Your task to perform on an android device: toggle sleep mode Image 0: 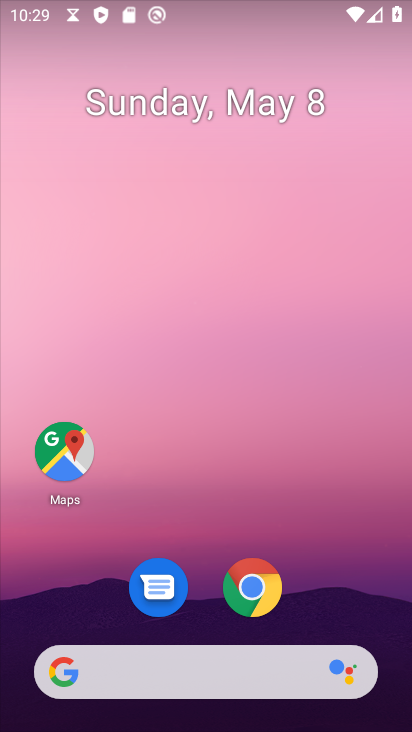
Step 0: drag from (348, 610) to (63, 59)
Your task to perform on an android device: toggle sleep mode Image 1: 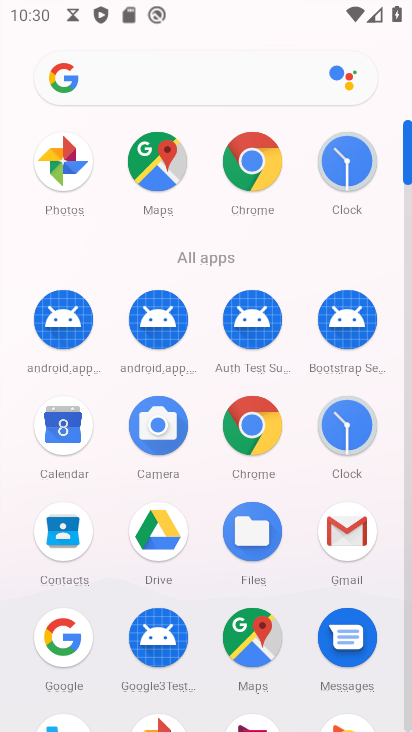
Step 1: drag from (206, 627) to (206, 204)
Your task to perform on an android device: toggle sleep mode Image 2: 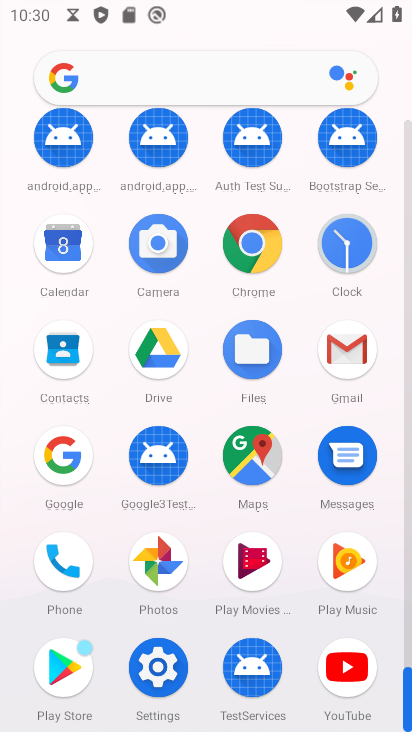
Step 2: click (156, 679)
Your task to perform on an android device: toggle sleep mode Image 3: 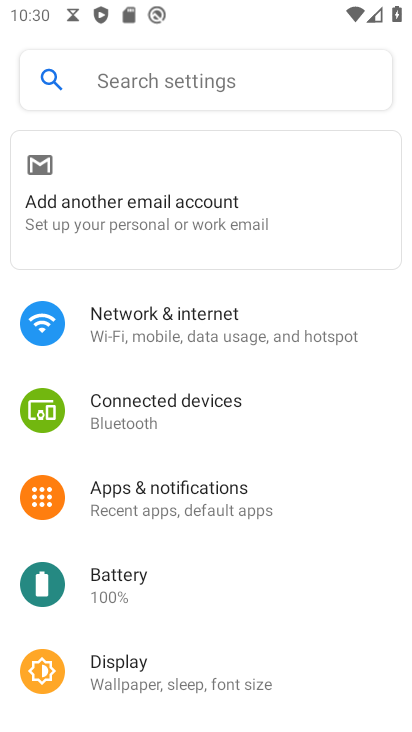
Step 3: click (221, 683)
Your task to perform on an android device: toggle sleep mode Image 4: 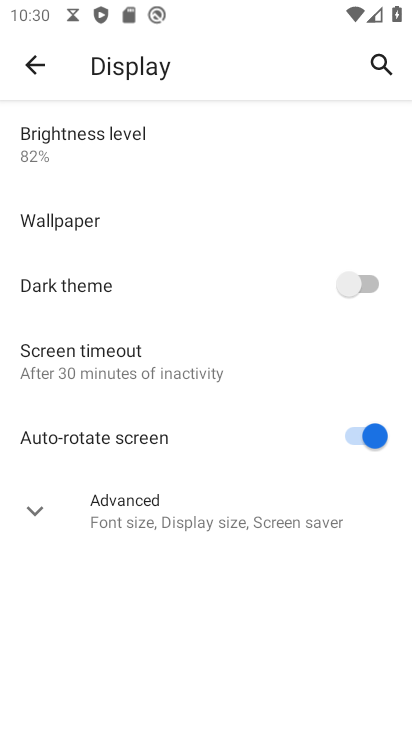
Step 4: click (159, 523)
Your task to perform on an android device: toggle sleep mode Image 5: 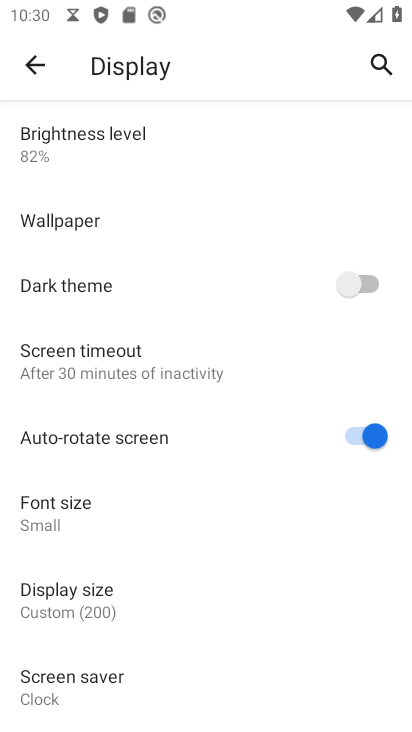
Step 5: task complete